Your task to perform on an android device: Open sound settings Image 0: 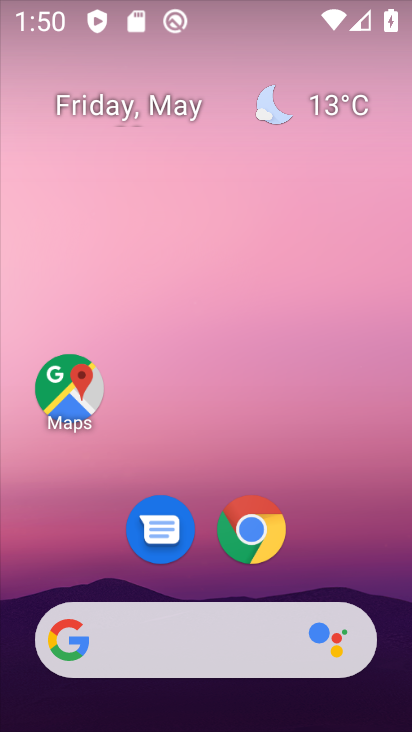
Step 0: drag from (365, 528) to (320, 114)
Your task to perform on an android device: Open sound settings Image 1: 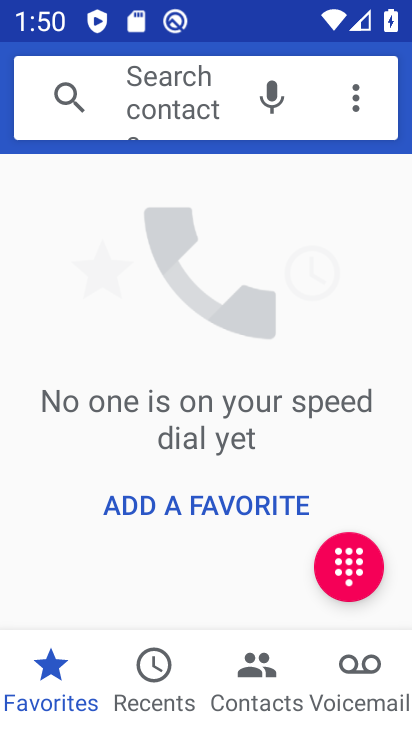
Step 1: press home button
Your task to perform on an android device: Open sound settings Image 2: 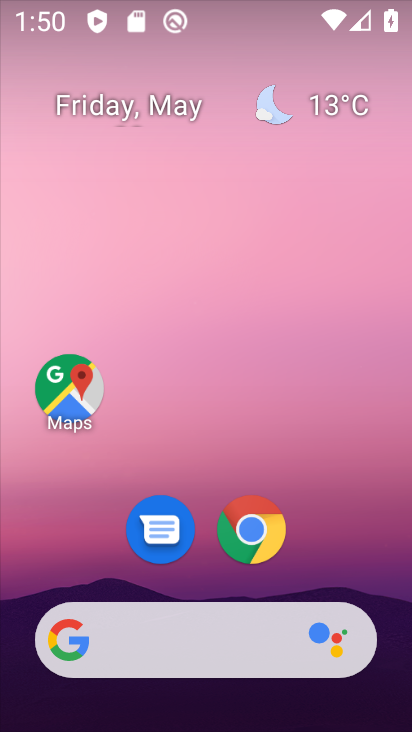
Step 2: drag from (372, 572) to (327, 91)
Your task to perform on an android device: Open sound settings Image 3: 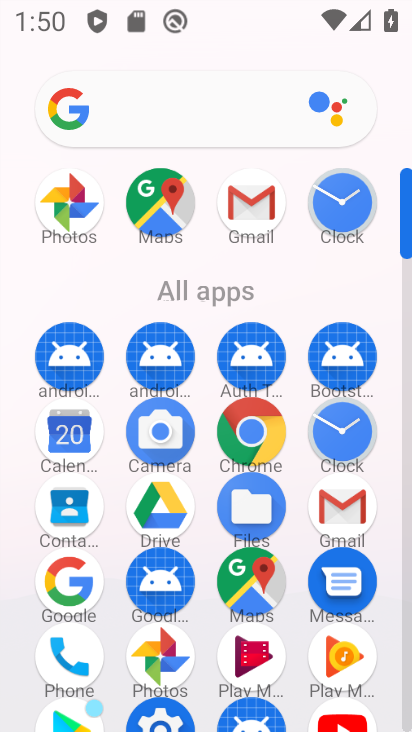
Step 3: drag from (206, 627) to (219, 339)
Your task to perform on an android device: Open sound settings Image 4: 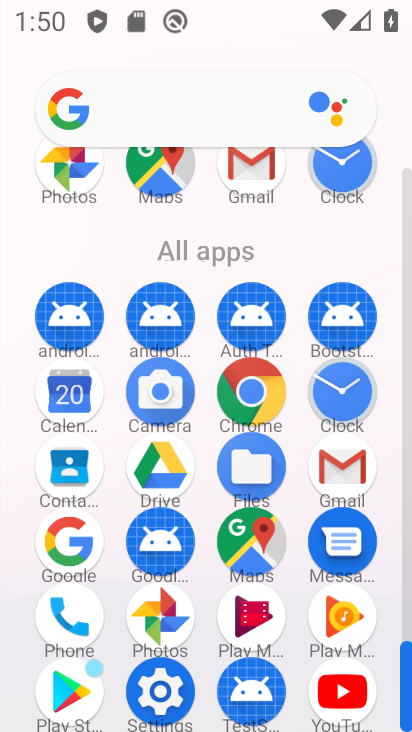
Step 4: click (179, 667)
Your task to perform on an android device: Open sound settings Image 5: 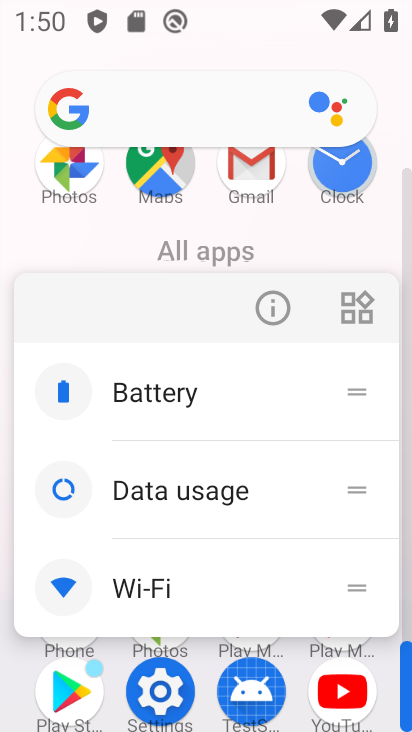
Step 5: click (173, 684)
Your task to perform on an android device: Open sound settings Image 6: 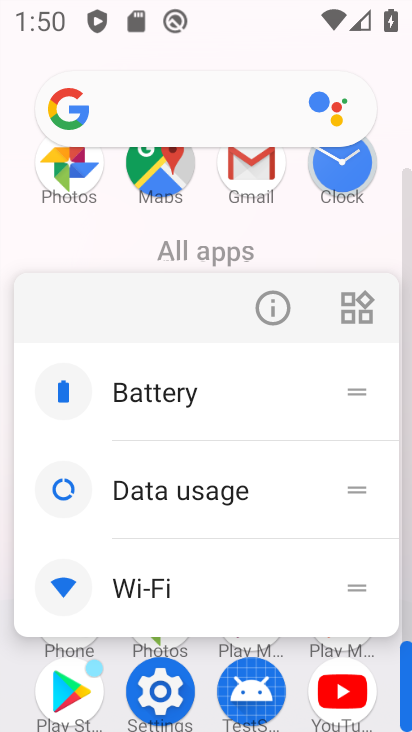
Step 6: click (169, 668)
Your task to perform on an android device: Open sound settings Image 7: 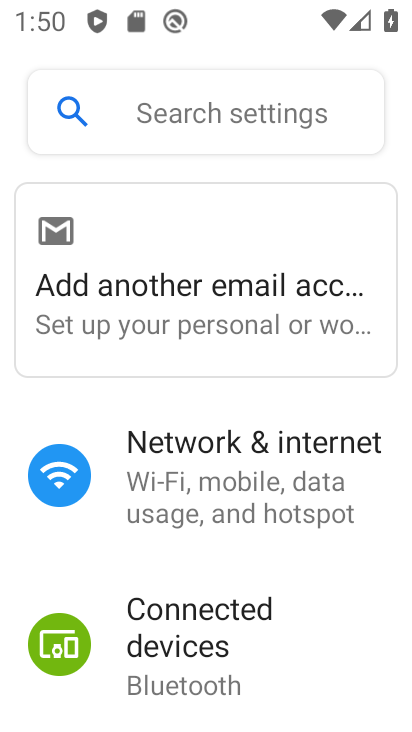
Step 7: drag from (255, 660) to (264, 252)
Your task to perform on an android device: Open sound settings Image 8: 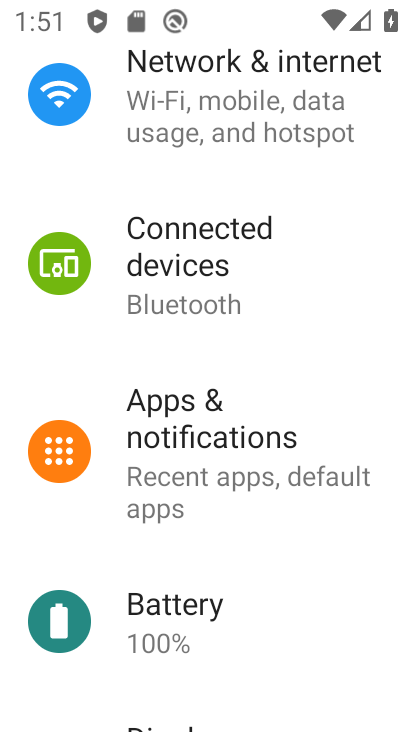
Step 8: drag from (272, 662) to (282, 307)
Your task to perform on an android device: Open sound settings Image 9: 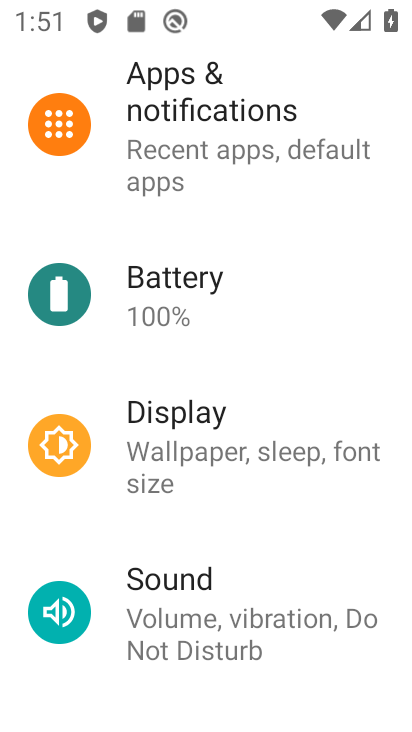
Step 9: click (245, 599)
Your task to perform on an android device: Open sound settings Image 10: 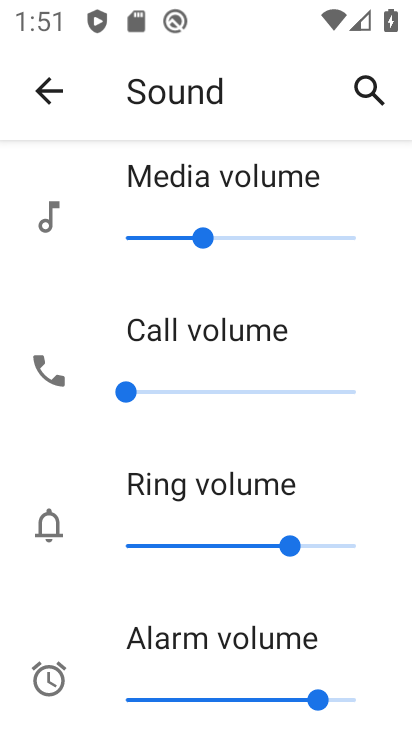
Step 10: task complete